Your task to perform on an android device: Open ESPN.com Image 0: 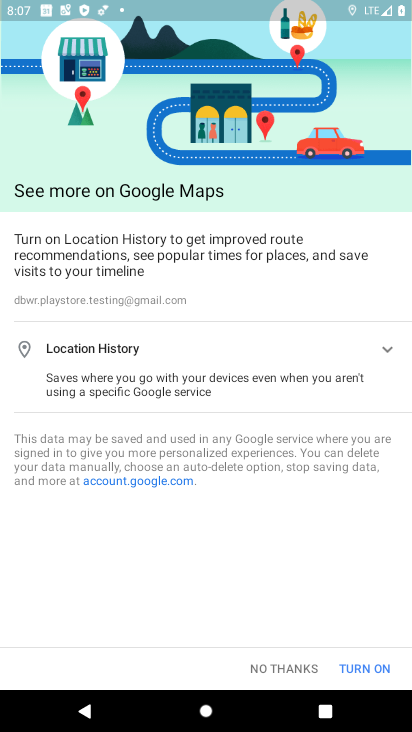
Step 0: press back button
Your task to perform on an android device: Open ESPN.com Image 1: 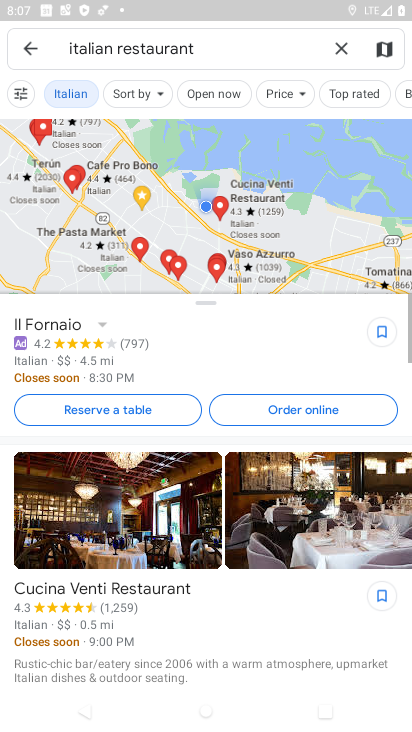
Step 1: press back button
Your task to perform on an android device: Open ESPN.com Image 2: 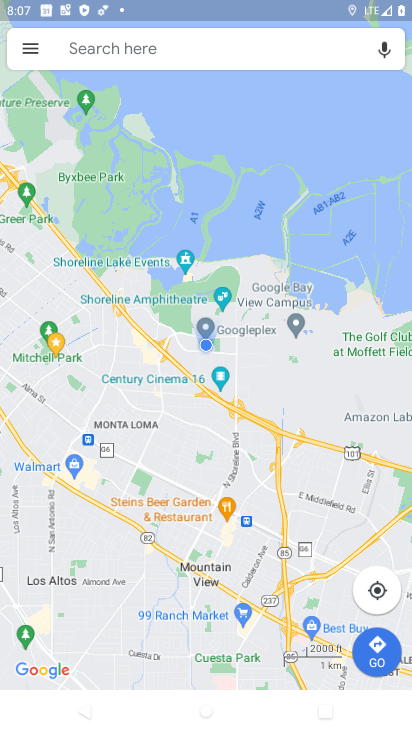
Step 2: press back button
Your task to perform on an android device: Open ESPN.com Image 3: 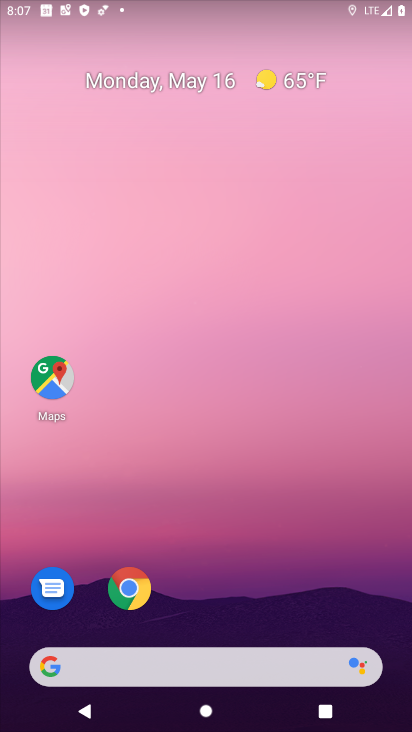
Step 3: drag from (239, 571) to (233, 27)
Your task to perform on an android device: Open ESPN.com Image 4: 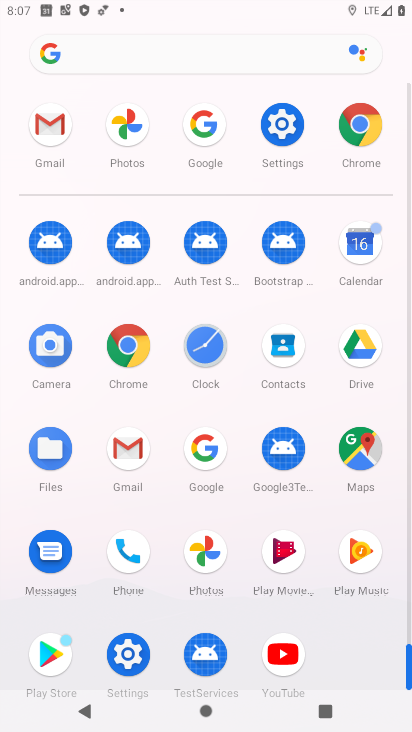
Step 4: click (126, 345)
Your task to perform on an android device: Open ESPN.com Image 5: 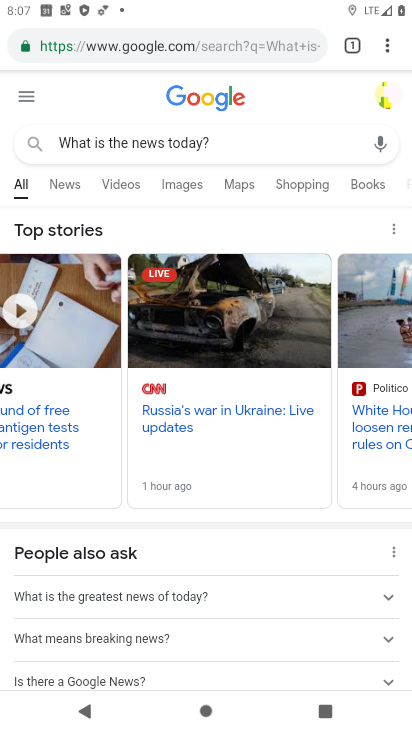
Step 5: click (165, 44)
Your task to perform on an android device: Open ESPN.com Image 6: 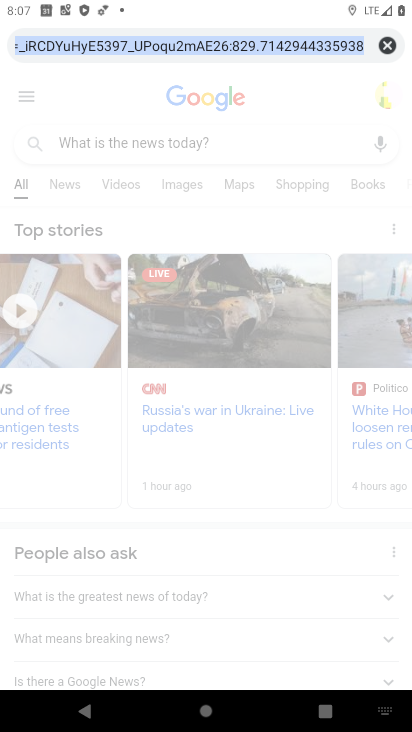
Step 6: click (383, 43)
Your task to perform on an android device: Open ESPN.com Image 7: 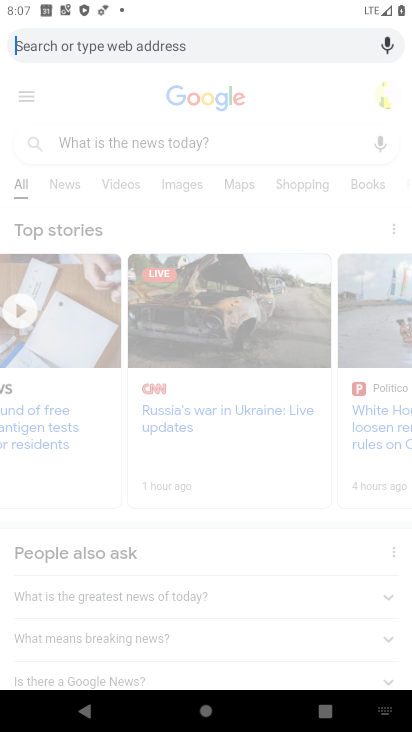
Step 7: type "ESPN.com"
Your task to perform on an android device: Open ESPN.com Image 8: 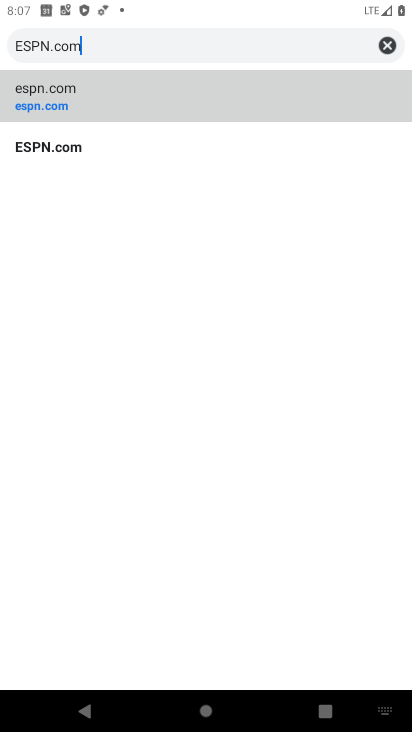
Step 8: type ""
Your task to perform on an android device: Open ESPN.com Image 9: 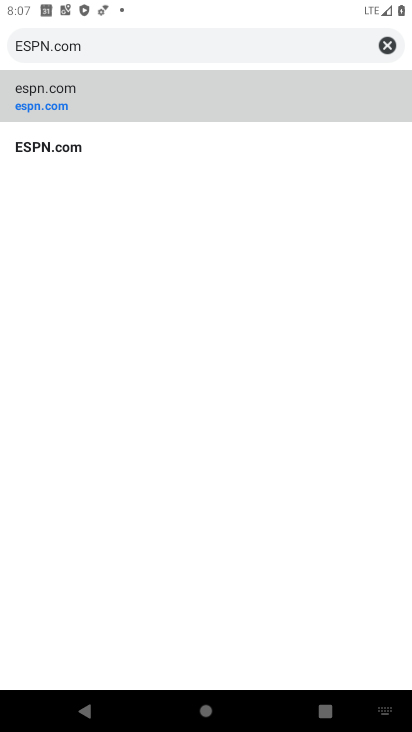
Step 9: click (88, 98)
Your task to perform on an android device: Open ESPN.com Image 10: 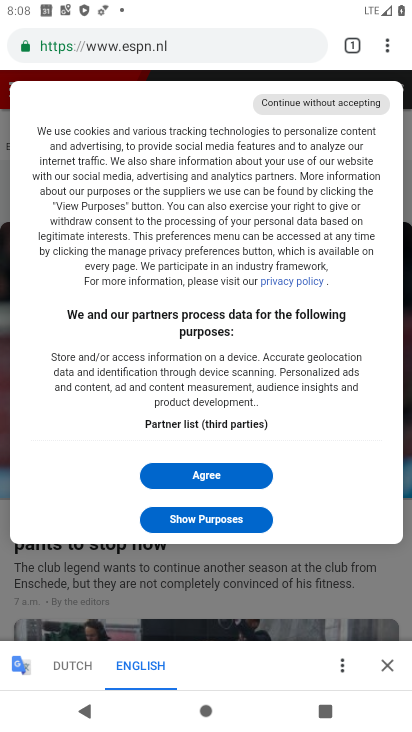
Step 10: click (209, 516)
Your task to perform on an android device: Open ESPN.com Image 11: 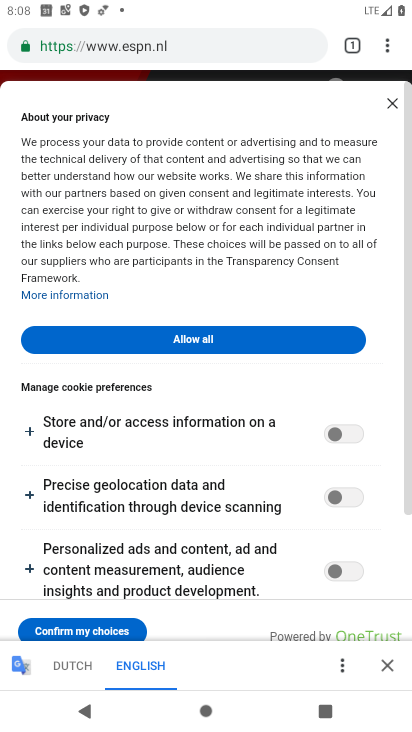
Step 11: click (110, 629)
Your task to perform on an android device: Open ESPN.com Image 12: 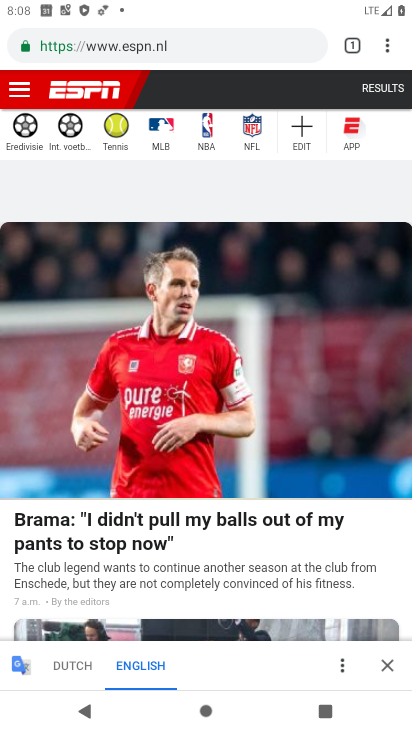
Step 12: task complete